Your task to perform on an android device: Open location settings Image 0: 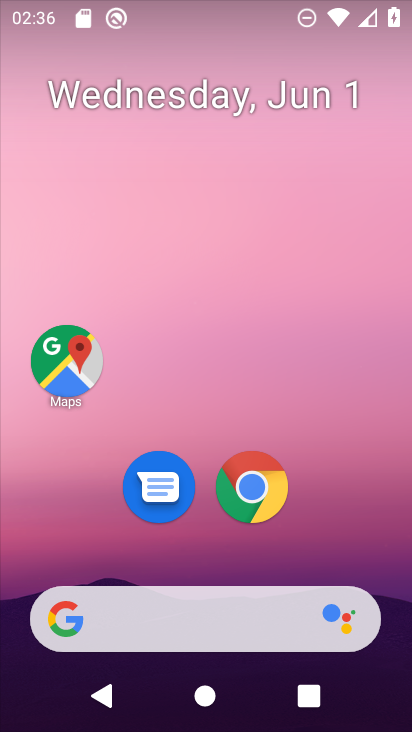
Step 0: drag from (314, 548) to (243, 66)
Your task to perform on an android device: Open location settings Image 1: 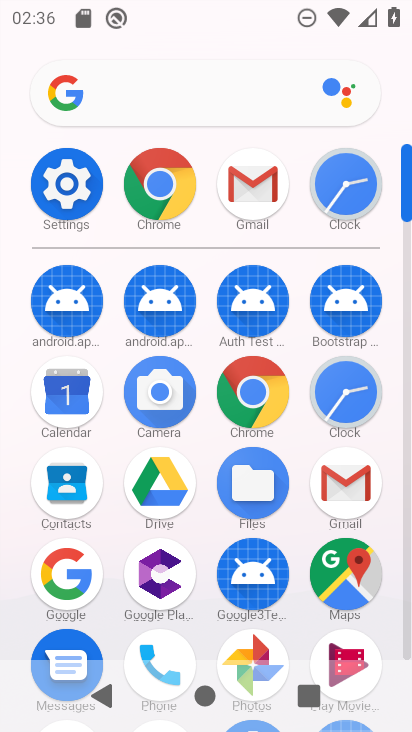
Step 1: click (56, 190)
Your task to perform on an android device: Open location settings Image 2: 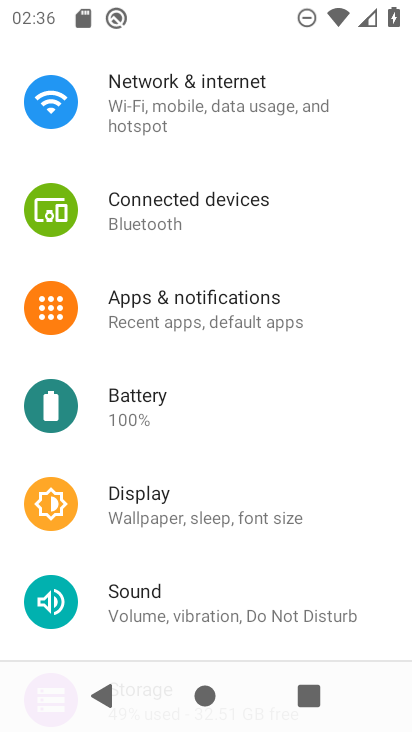
Step 2: drag from (276, 594) to (278, 274)
Your task to perform on an android device: Open location settings Image 3: 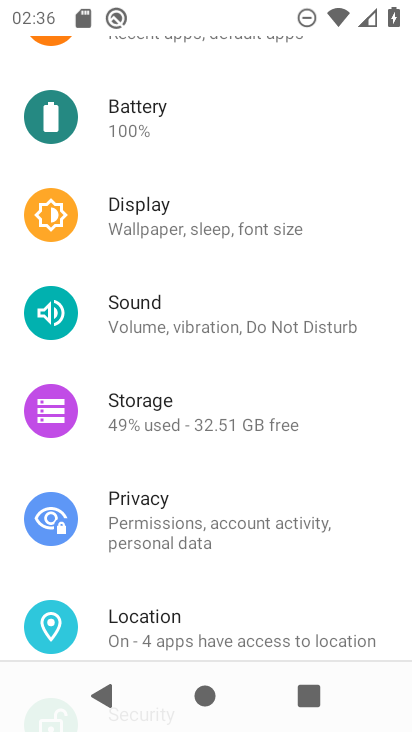
Step 3: drag from (165, 510) to (208, 255)
Your task to perform on an android device: Open location settings Image 4: 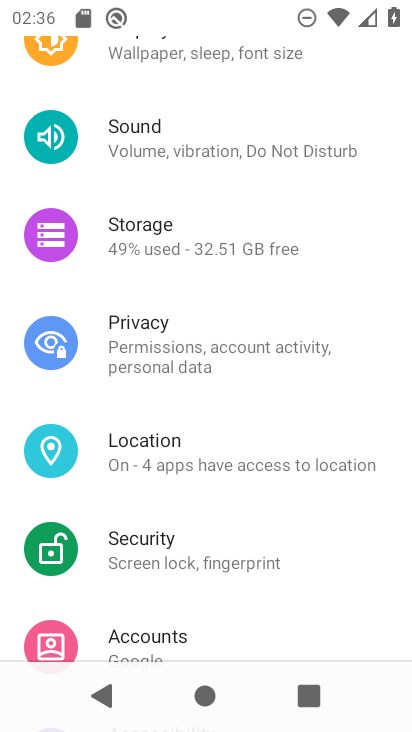
Step 4: click (190, 416)
Your task to perform on an android device: Open location settings Image 5: 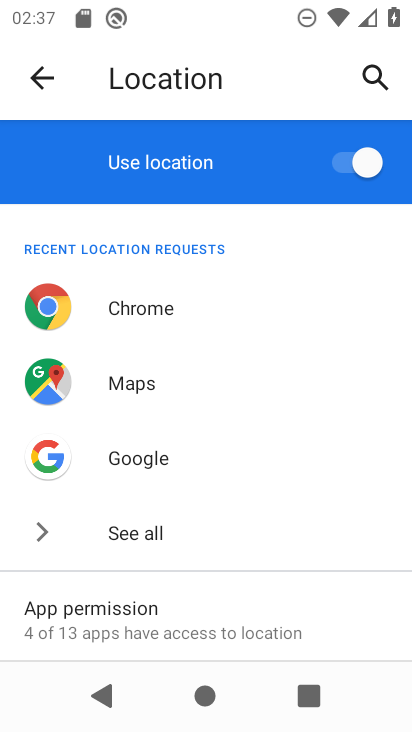
Step 5: task complete